Your task to perform on an android device: turn vacation reply on in the gmail app Image 0: 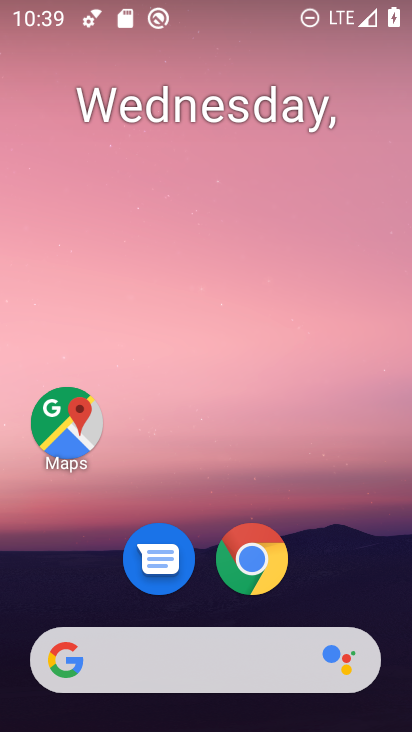
Step 0: drag from (381, 575) to (382, 125)
Your task to perform on an android device: turn vacation reply on in the gmail app Image 1: 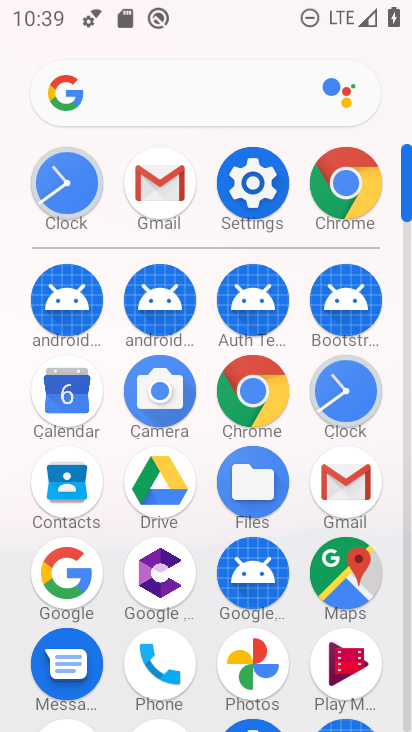
Step 1: click (343, 482)
Your task to perform on an android device: turn vacation reply on in the gmail app Image 2: 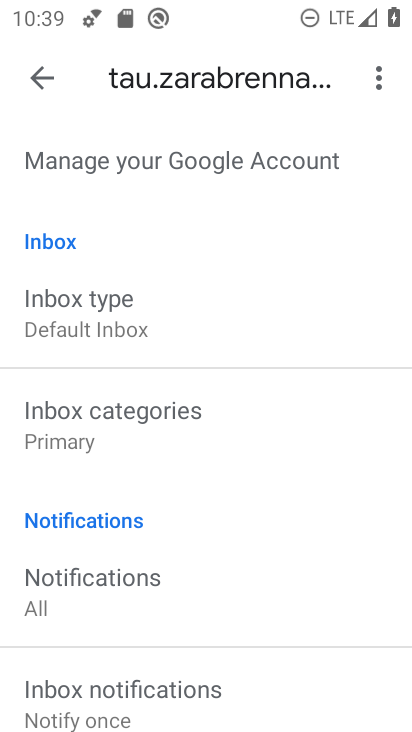
Step 2: drag from (352, 521) to (346, 377)
Your task to perform on an android device: turn vacation reply on in the gmail app Image 3: 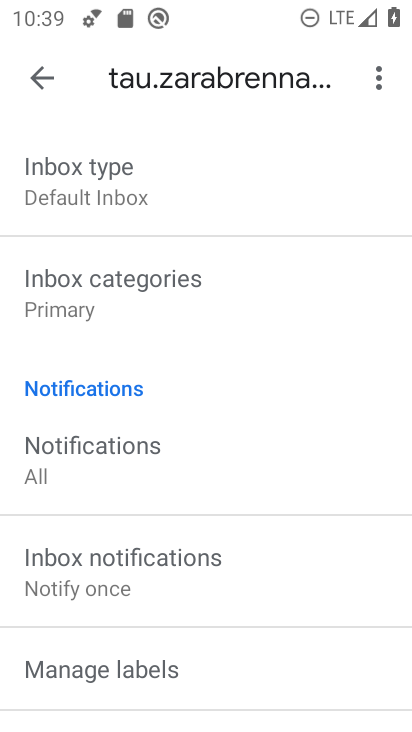
Step 3: drag from (356, 475) to (353, 328)
Your task to perform on an android device: turn vacation reply on in the gmail app Image 4: 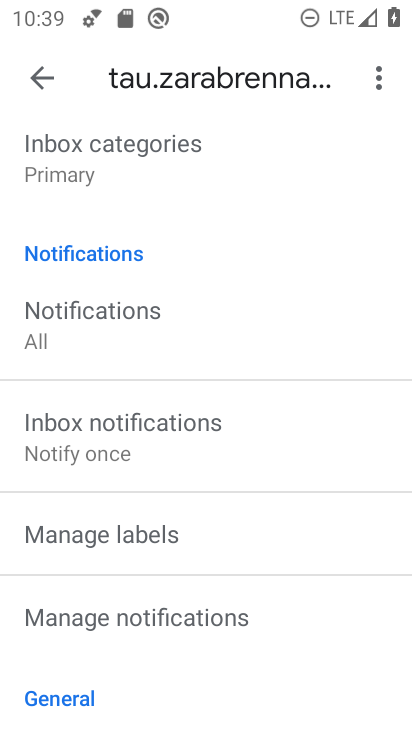
Step 4: drag from (346, 555) to (344, 399)
Your task to perform on an android device: turn vacation reply on in the gmail app Image 5: 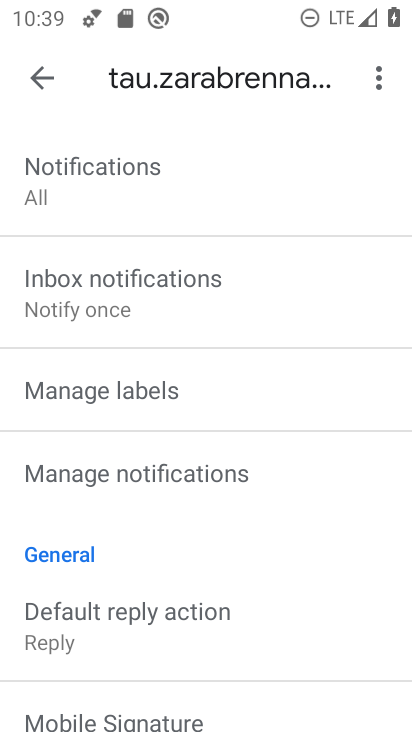
Step 5: drag from (352, 563) to (337, 415)
Your task to perform on an android device: turn vacation reply on in the gmail app Image 6: 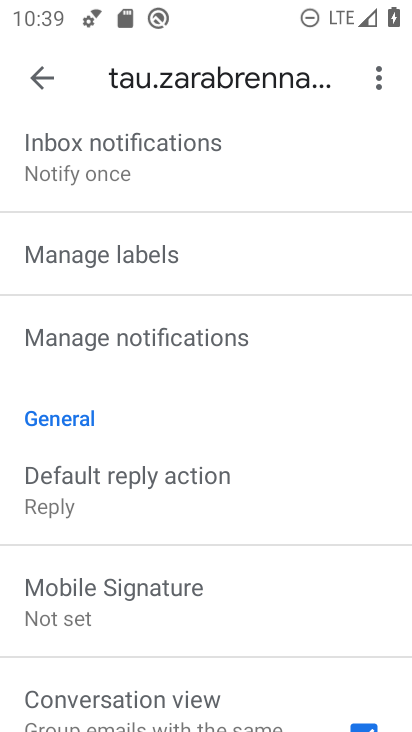
Step 6: drag from (332, 553) to (342, 414)
Your task to perform on an android device: turn vacation reply on in the gmail app Image 7: 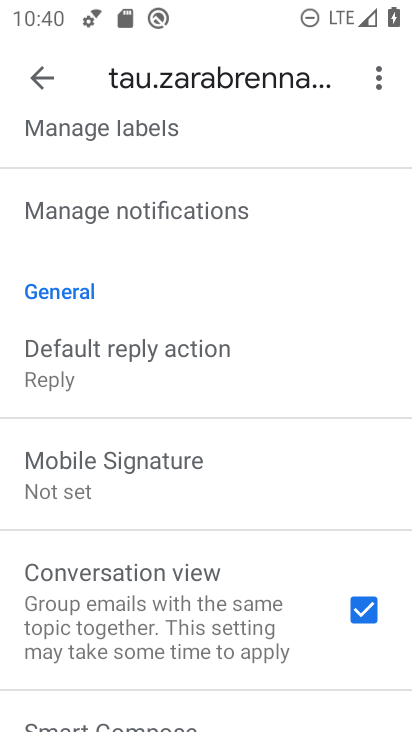
Step 7: drag from (312, 546) to (298, 379)
Your task to perform on an android device: turn vacation reply on in the gmail app Image 8: 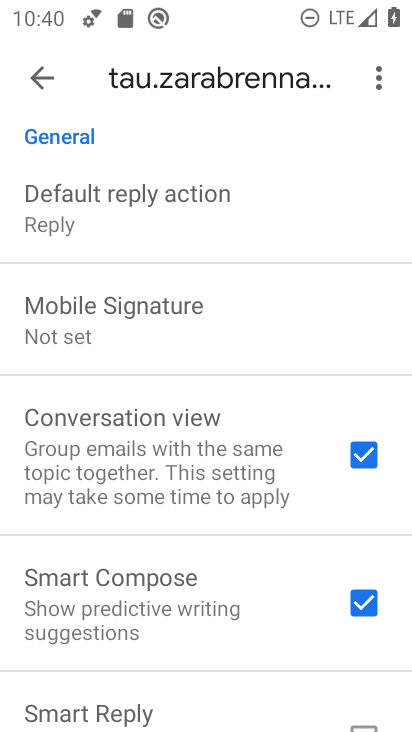
Step 8: drag from (301, 571) to (300, 394)
Your task to perform on an android device: turn vacation reply on in the gmail app Image 9: 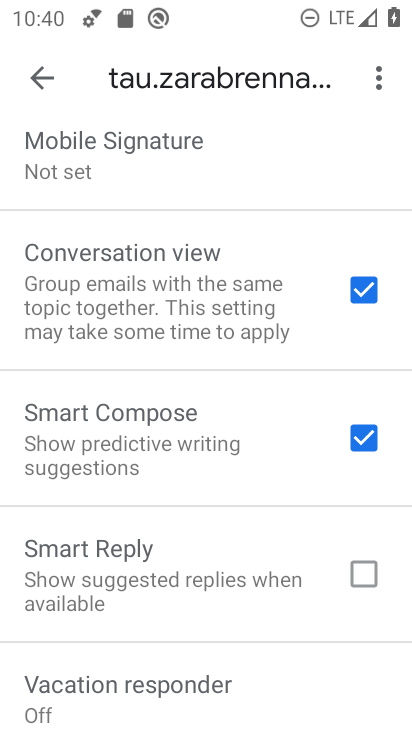
Step 9: drag from (300, 622) to (287, 495)
Your task to perform on an android device: turn vacation reply on in the gmail app Image 10: 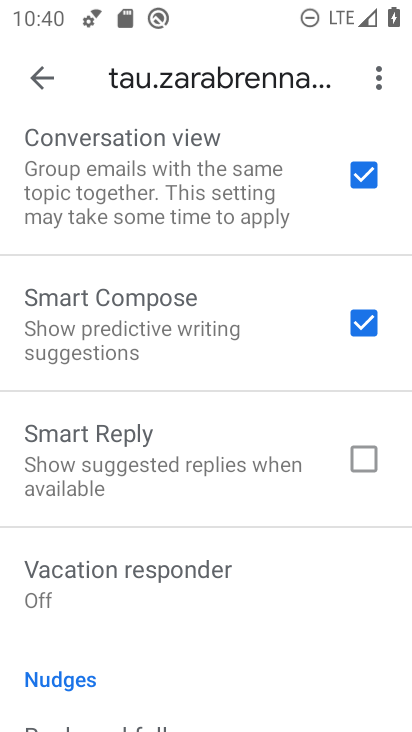
Step 10: click (214, 574)
Your task to perform on an android device: turn vacation reply on in the gmail app Image 11: 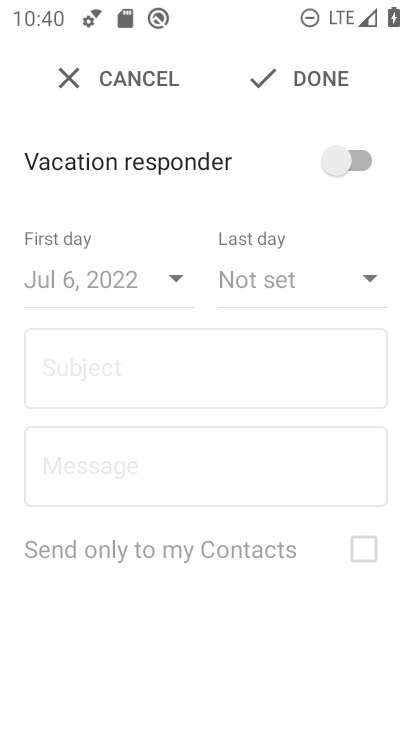
Step 11: click (338, 158)
Your task to perform on an android device: turn vacation reply on in the gmail app Image 12: 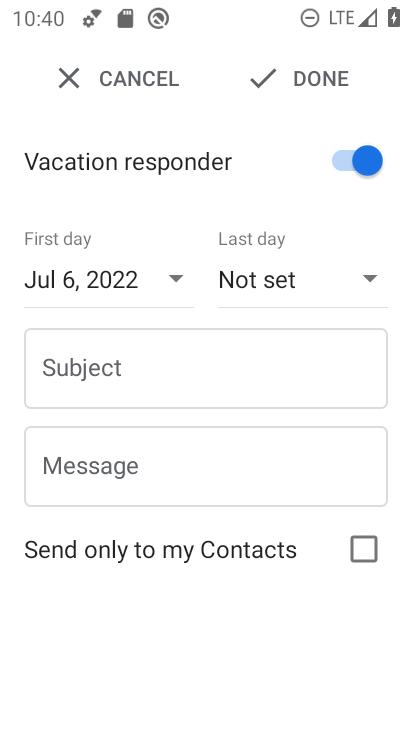
Step 12: task complete